Your task to perform on an android device: turn on priority inbox in the gmail app Image 0: 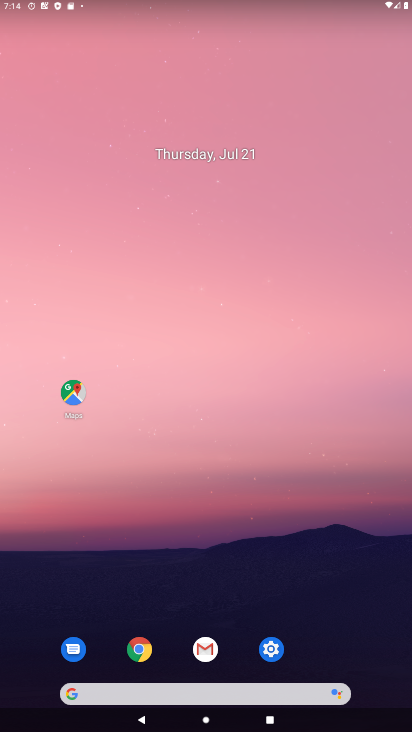
Step 0: click (207, 659)
Your task to perform on an android device: turn on priority inbox in the gmail app Image 1: 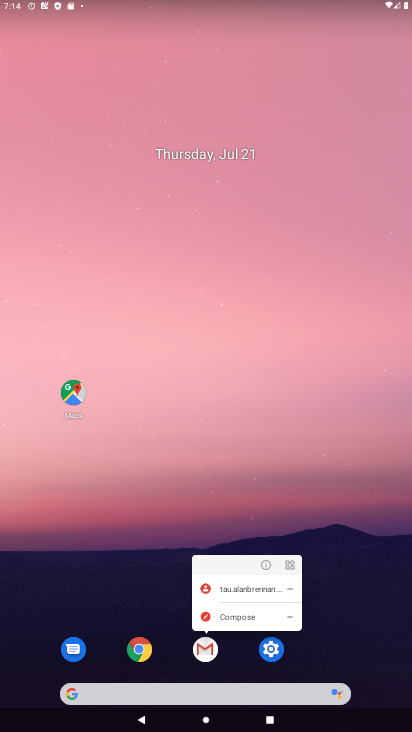
Step 1: click (201, 655)
Your task to perform on an android device: turn on priority inbox in the gmail app Image 2: 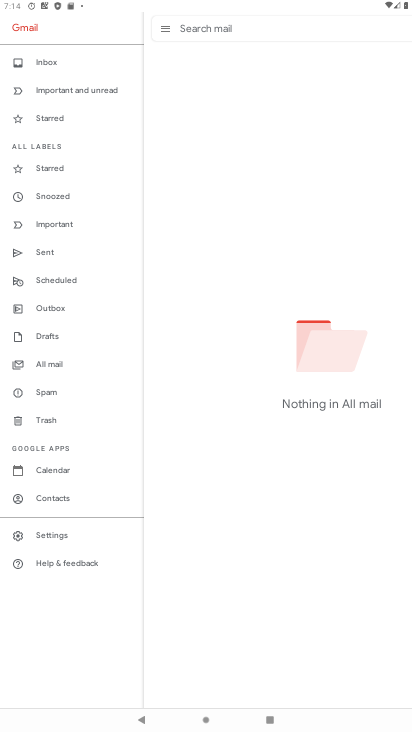
Step 2: click (46, 532)
Your task to perform on an android device: turn on priority inbox in the gmail app Image 3: 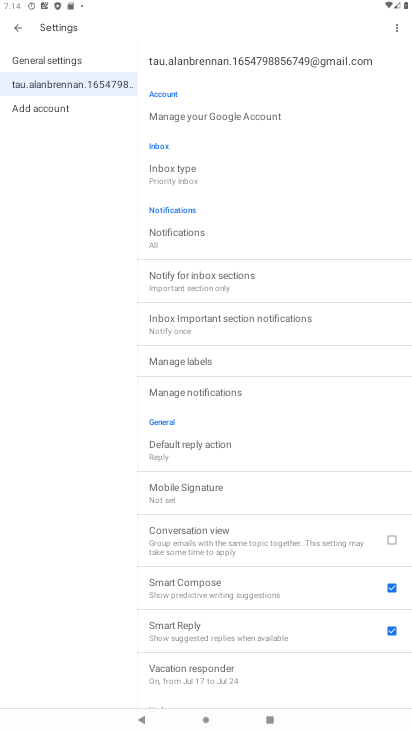
Step 3: click (169, 176)
Your task to perform on an android device: turn on priority inbox in the gmail app Image 4: 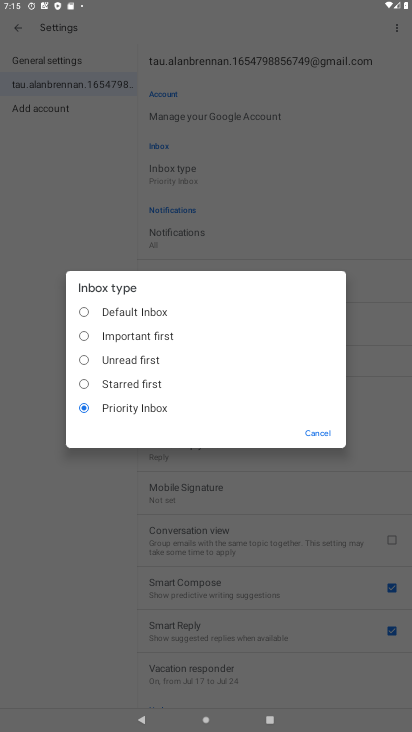
Step 4: task complete